Your task to perform on an android device: turn off picture-in-picture Image 0: 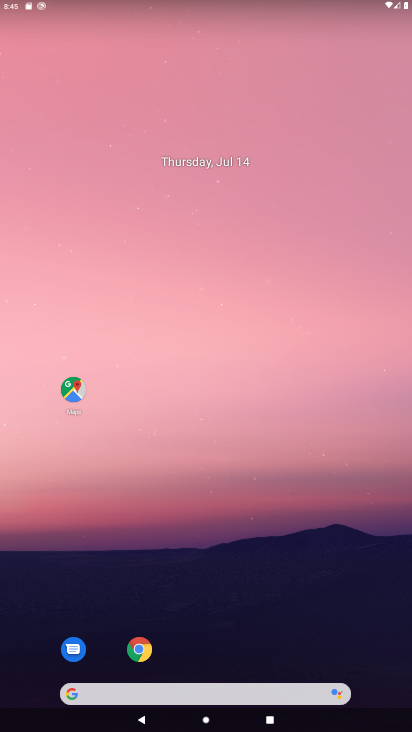
Step 0: click (142, 652)
Your task to perform on an android device: turn off picture-in-picture Image 1: 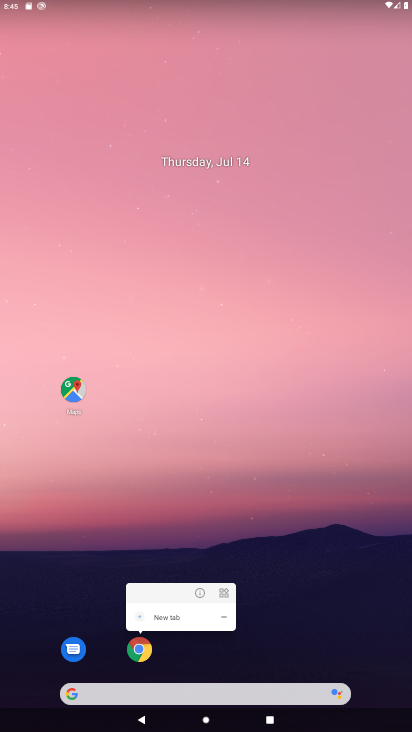
Step 1: click (199, 594)
Your task to perform on an android device: turn off picture-in-picture Image 2: 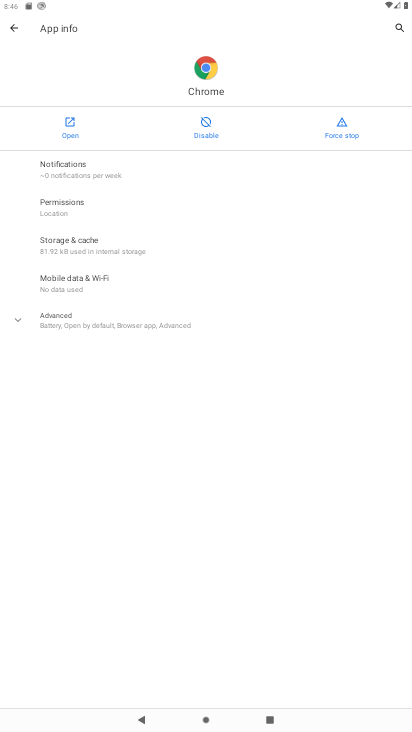
Step 2: click (67, 318)
Your task to perform on an android device: turn off picture-in-picture Image 3: 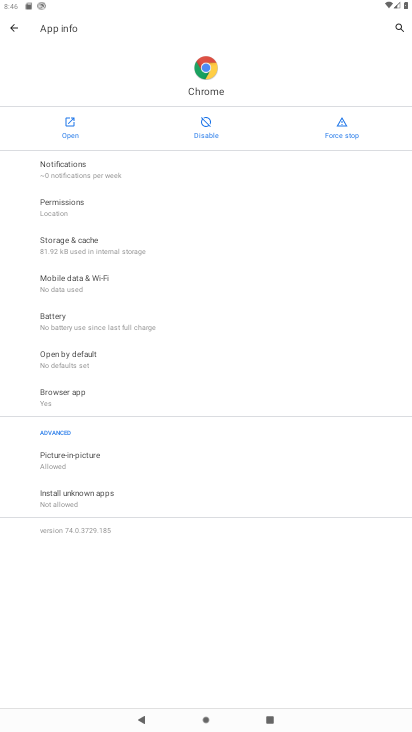
Step 3: click (85, 458)
Your task to perform on an android device: turn off picture-in-picture Image 4: 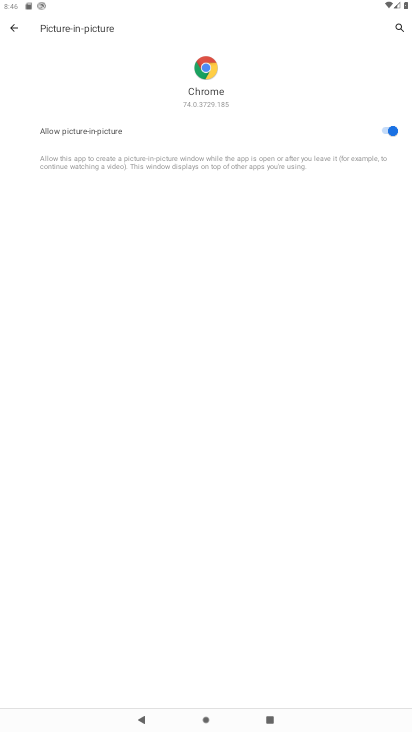
Step 4: click (376, 138)
Your task to perform on an android device: turn off picture-in-picture Image 5: 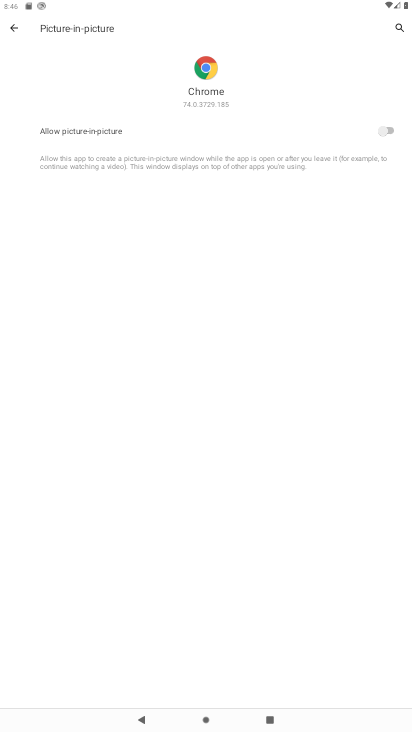
Step 5: task complete